Your task to perform on an android device: Check the weather Image 0: 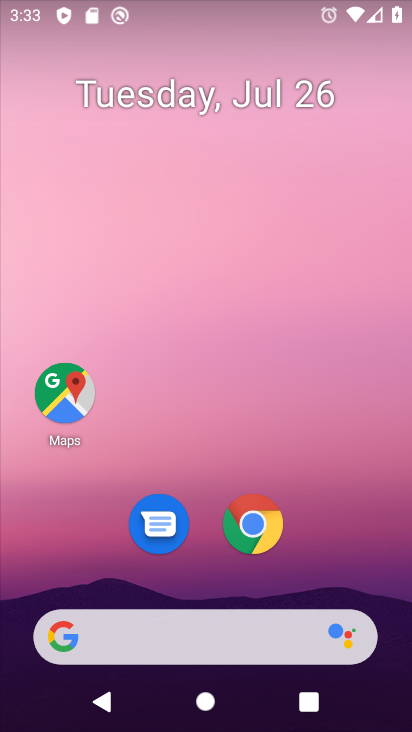
Step 0: click (251, 644)
Your task to perform on an android device: Check the weather Image 1: 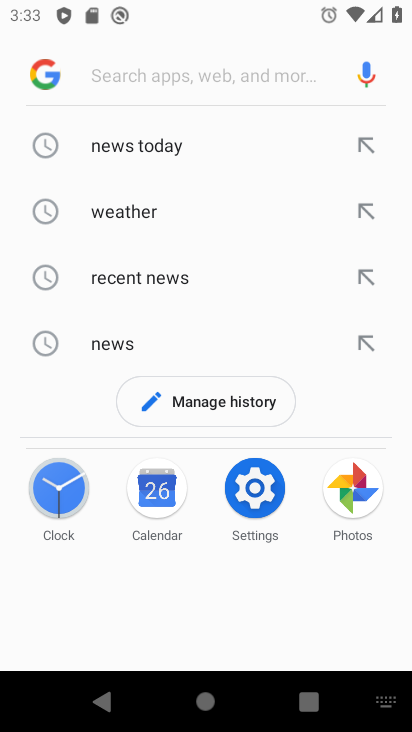
Step 1: click (145, 218)
Your task to perform on an android device: Check the weather Image 2: 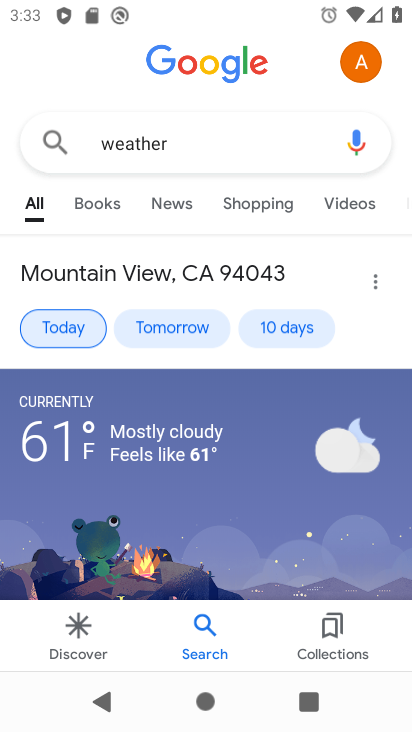
Step 2: click (77, 327)
Your task to perform on an android device: Check the weather Image 3: 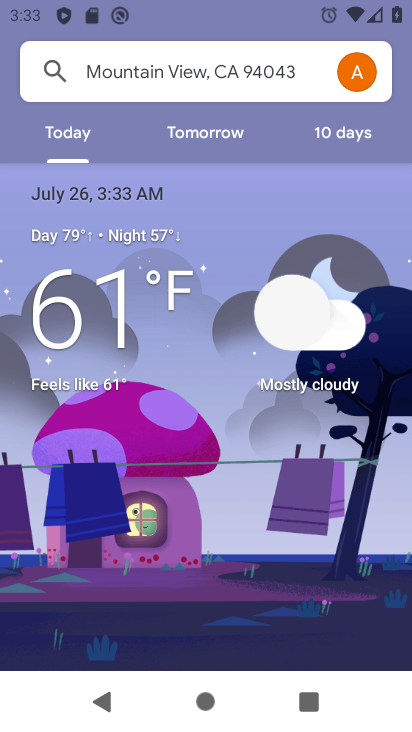
Step 3: task complete